Your task to perform on an android device: toggle notification dots Image 0: 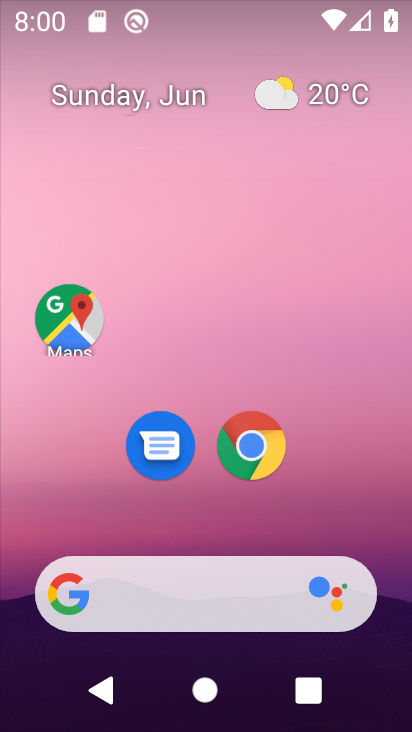
Step 0: drag from (314, 469) to (363, 178)
Your task to perform on an android device: toggle notification dots Image 1: 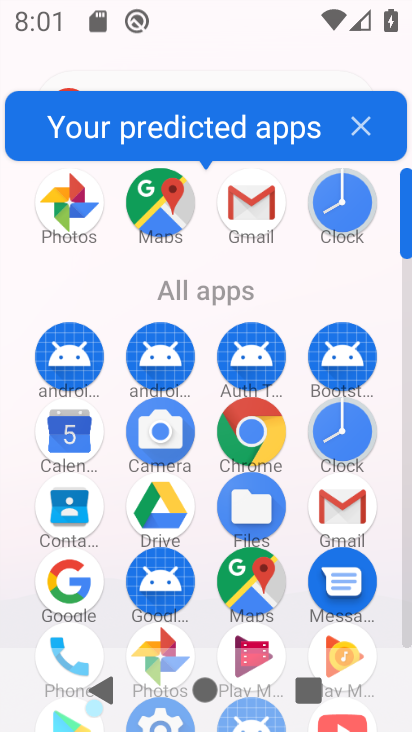
Step 1: drag from (245, 508) to (287, 230)
Your task to perform on an android device: toggle notification dots Image 2: 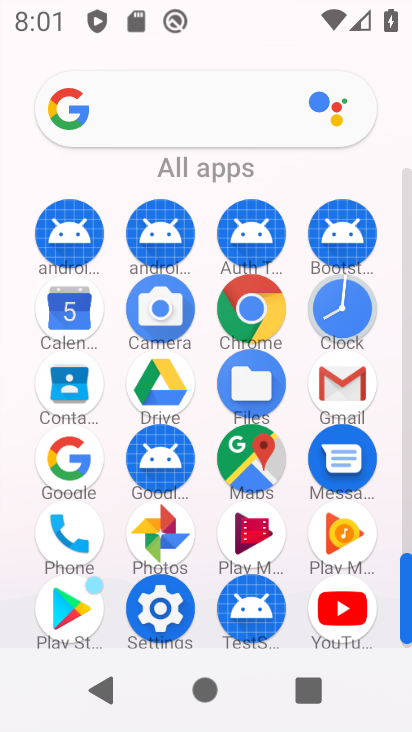
Step 2: click (177, 603)
Your task to perform on an android device: toggle notification dots Image 3: 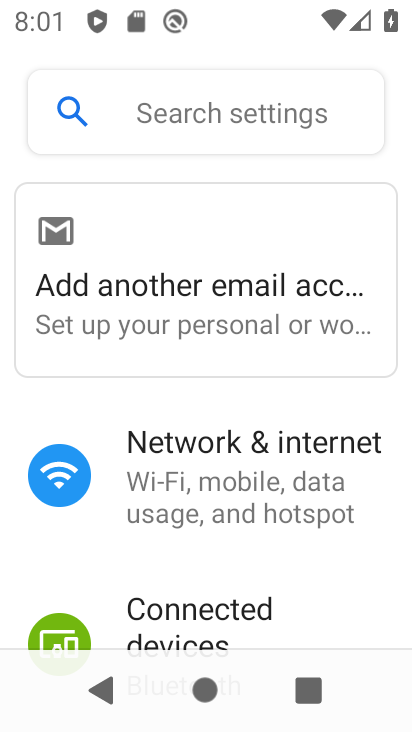
Step 3: drag from (316, 574) to (359, 284)
Your task to perform on an android device: toggle notification dots Image 4: 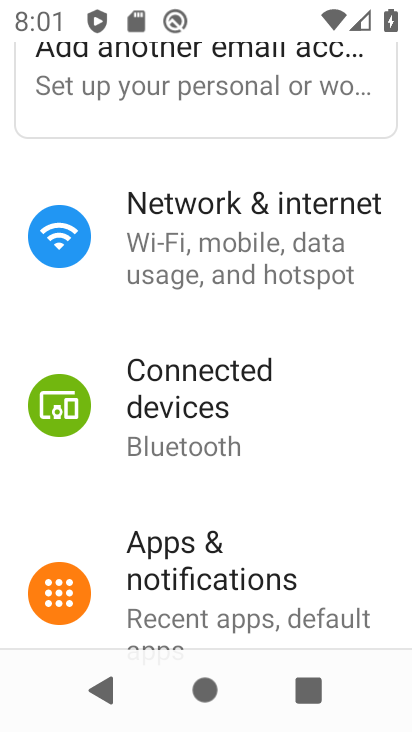
Step 4: click (243, 570)
Your task to perform on an android device: toggle notification dots Image 5: 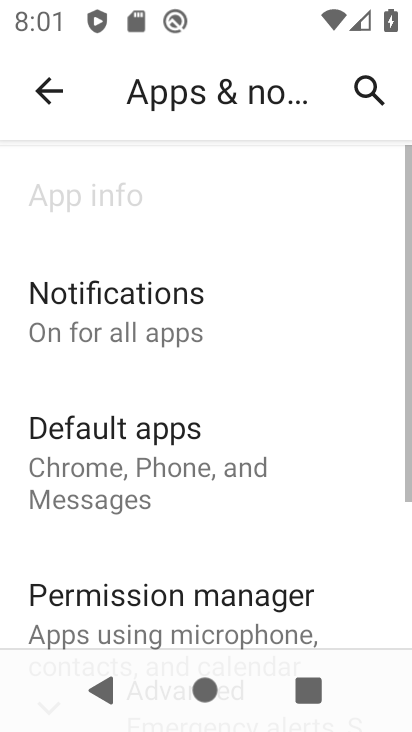
Step 5: drag from (250, 570) to (285, 229)
Your task to perform on an android device: toggle notification dots Image 6: 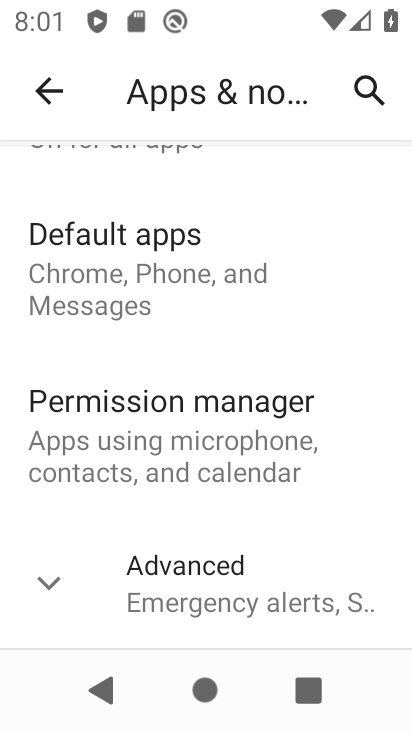
Step 6: drag from (287, 467) to (244, 599)
Your task to perform on an android device: toggle notification dots Image 7: 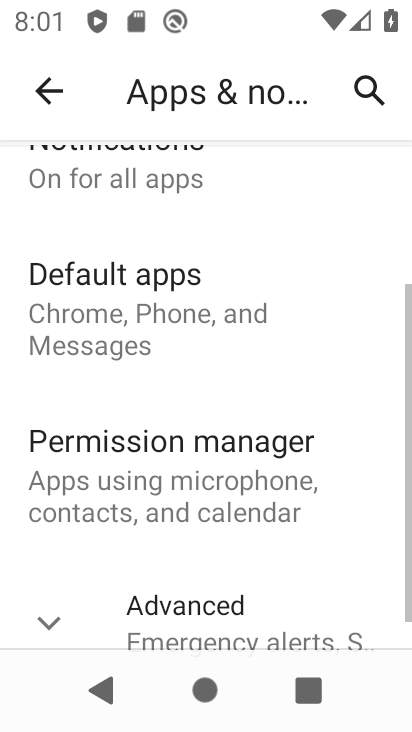
Step 7: drag from (275, 160) to (289, 446)
Your task to perform on an android device: toggle notification dots Image 8: 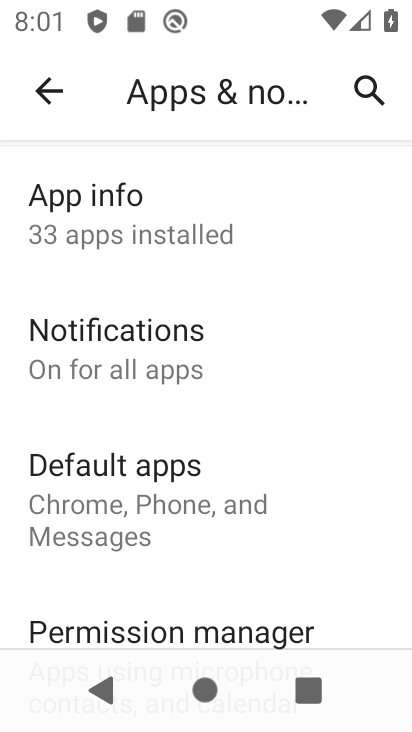
Step 8: click (238, 355)
Your task to perform on an android device: toggle notification dots Image 9: 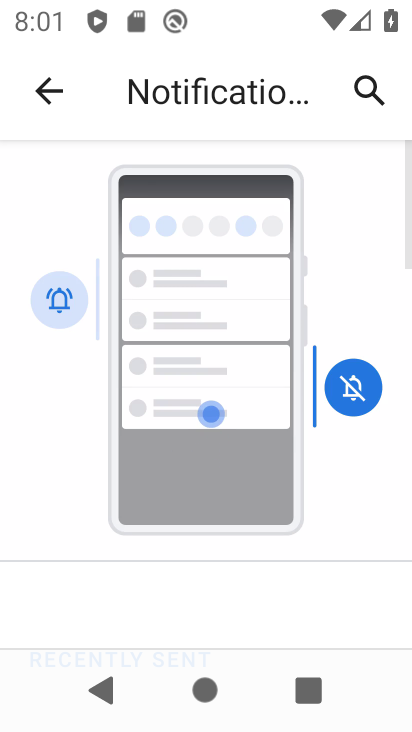
Step 9: drag from (276, 551) to (318, 173)
Your task to perform on an android device: toggle notification dots Image 10: 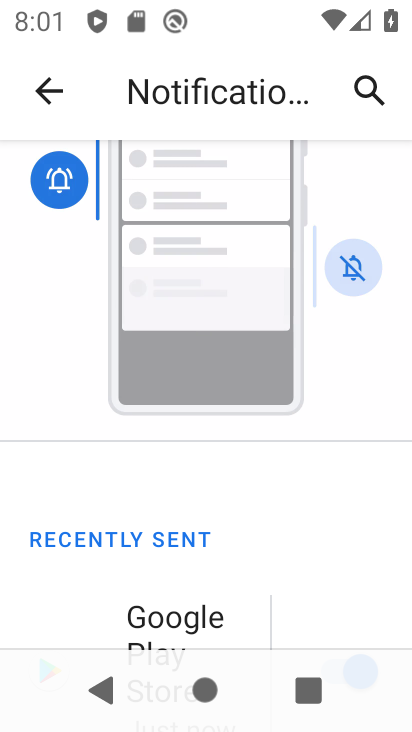
Step 10: drag from (225, 556) to (192, 217)
Your task to perform on an android device: toggle notification dots Image 11: 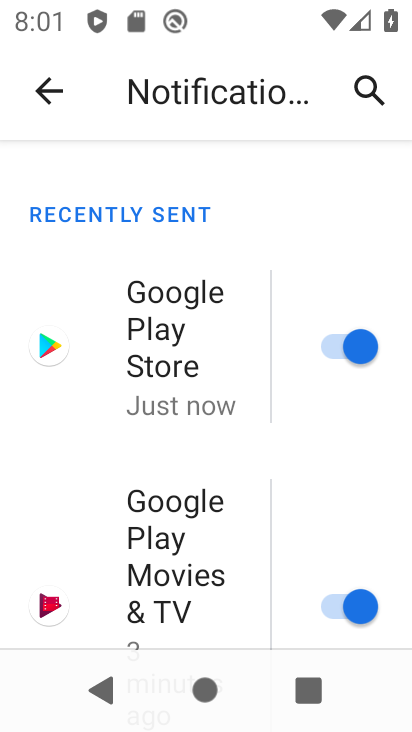
Step 11: drag from (212, 633) to (253, 181)
Your task to perform on an android device: toggle notification dots Image 12: 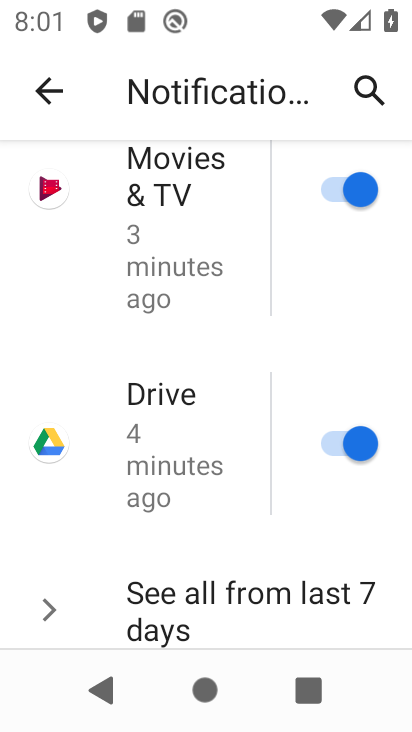
Step 12: drag from (263, 581) to (305, 204)
Your task to perform on an android device: toggle notification dots Image 13: 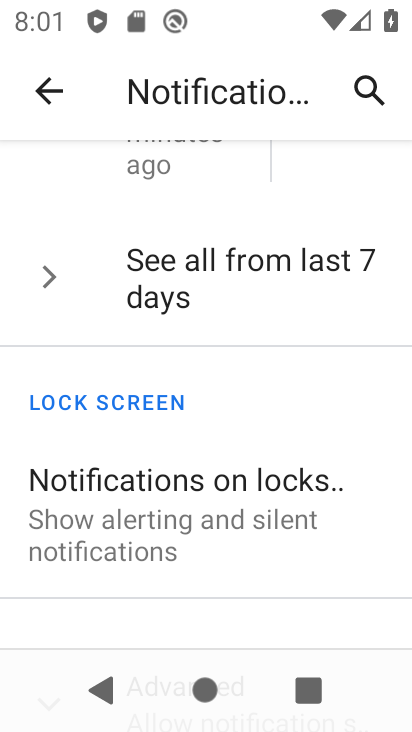
Step 13: click (283, 212)
Your task to perform on an android device: toggle notification dots Image 14: 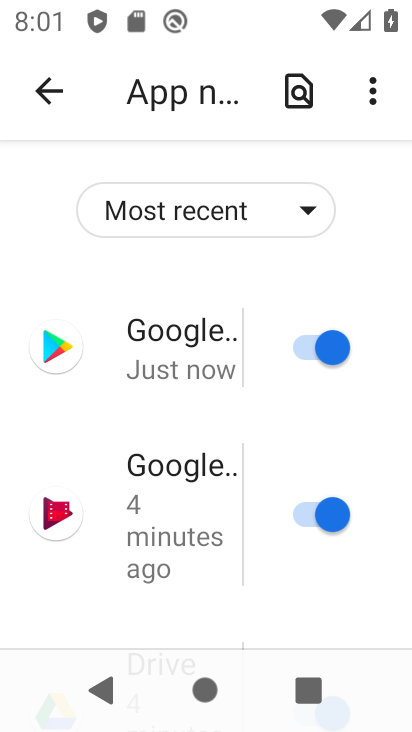
Step 14: click (61, 91)
Your task to perform on an android device: toggle notification dots Image 15: 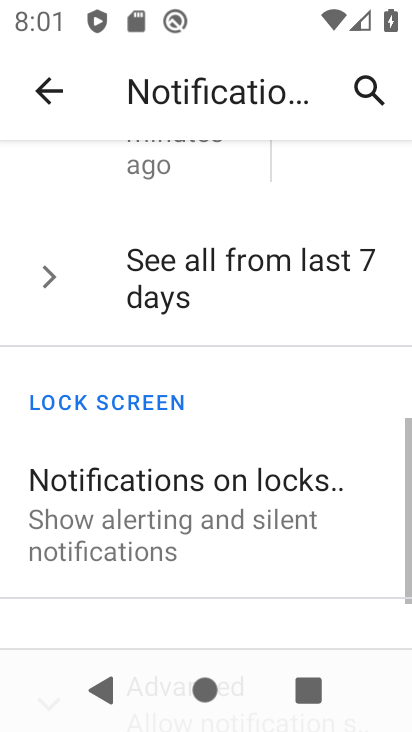
Step 15: drag from (254, 550) to (296, 169)
Your task to perform on an android device: toggle notification dots Image 16: 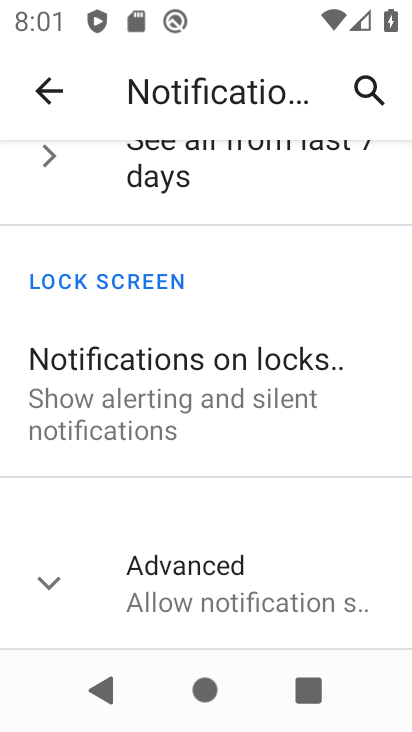
Step 16: click (229, 563)
Your task to perform on an android device: toggle notification dots Image 17: 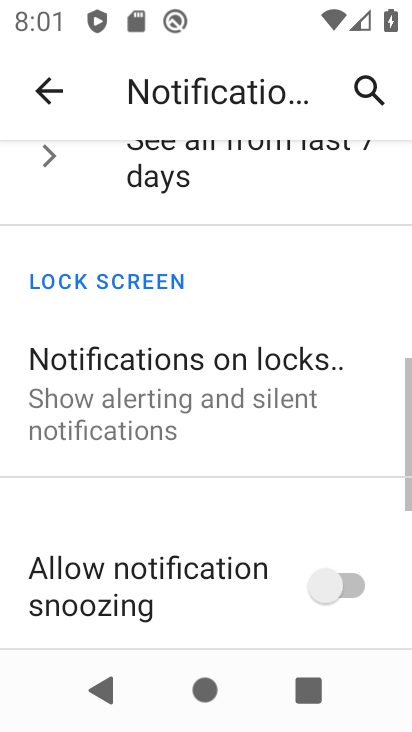
Step 17: drag from (224, 556) to (277, 188)
Your task to perform on an android device: toggle notification dots Image 18: 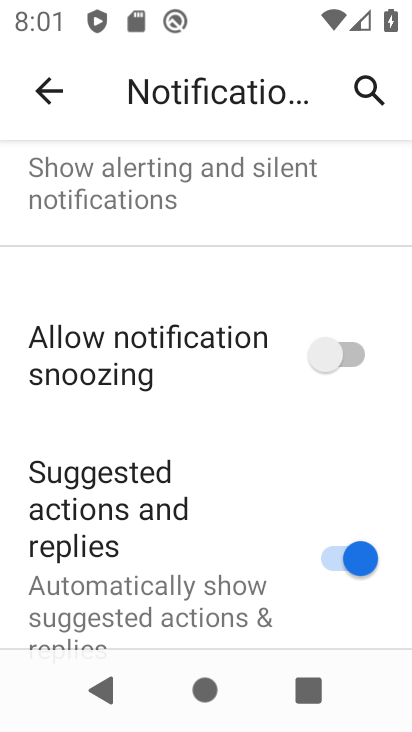
Step 18: drag from (295, 549) to (316, 157)
Your task to perform on an android device: toggle notification dots Image 19: 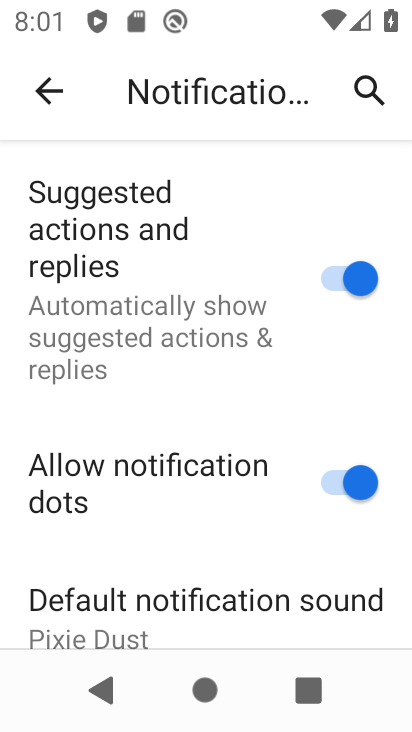
Step 19: click (342, 475)
Your task to perform on an android device: toggle notification dots Image 20: 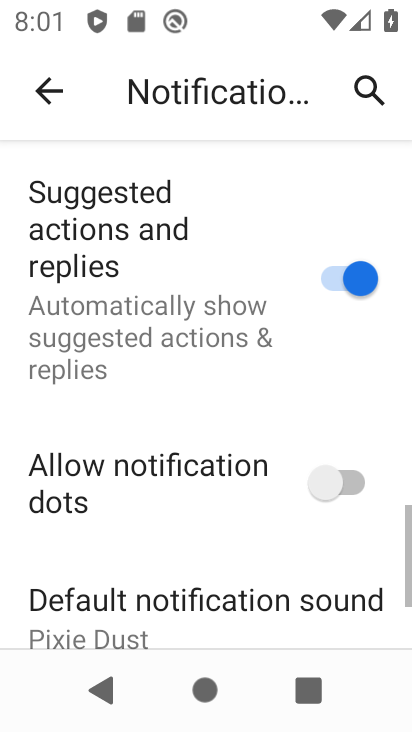
Step 20: task complete